Your task to perform on an android device: Turn off the flashlight Image 0: 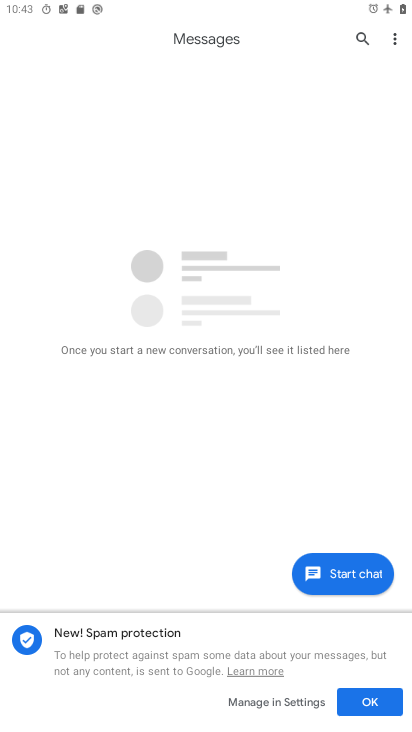
Step 0: press home button
Your task to perform on an android device: Turn off the flashlight Image 1: 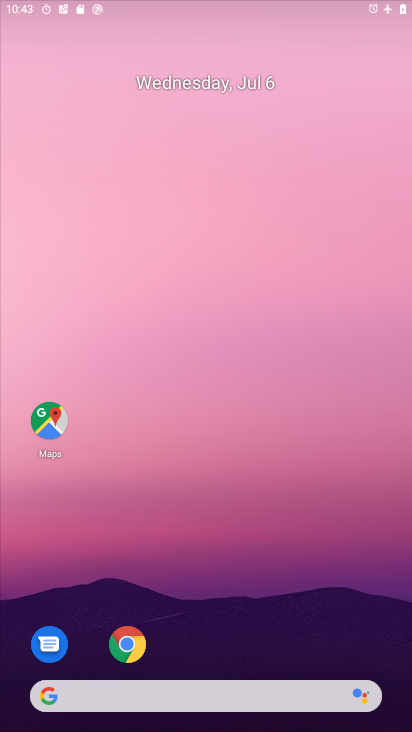
Step 1: task complete